Your task to perform on an android device: Open Reddit.com Image 0: 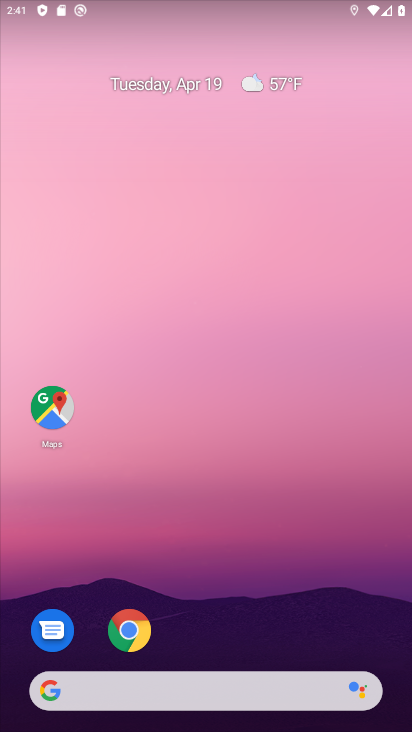
Step 0: click (144, 628)
Your task to perform on an android device: Open Reddit.com Image 1: 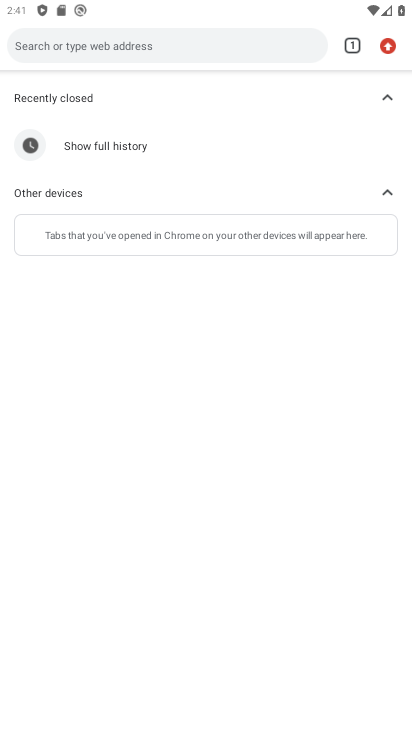
Step 1: click (180, 59)
Your task to perform on an android device: Open Reddit.com Image 2: 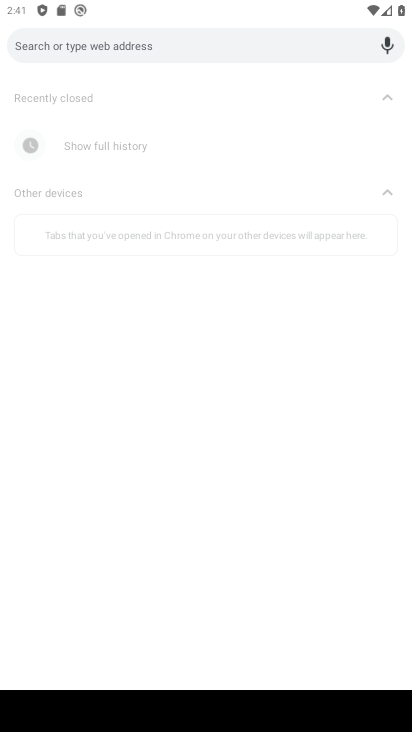
Step 2: type "Reddit.com"
Your task to perform on an android device: Open Reddit.com Image 3: 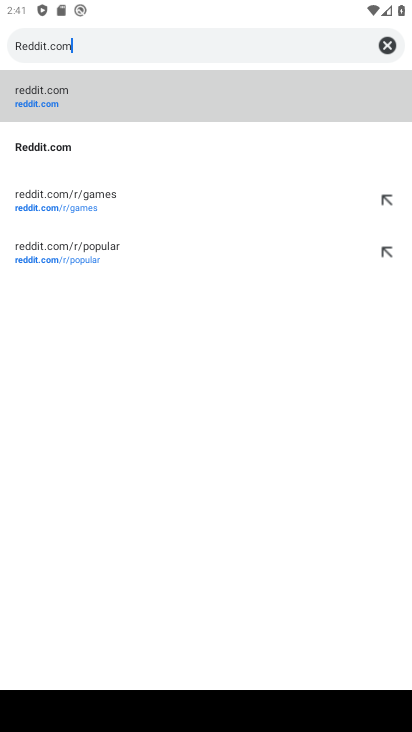
Step 3: click (160, 87)
Your task to perform on an android device: Open Reddit.com Image 4: 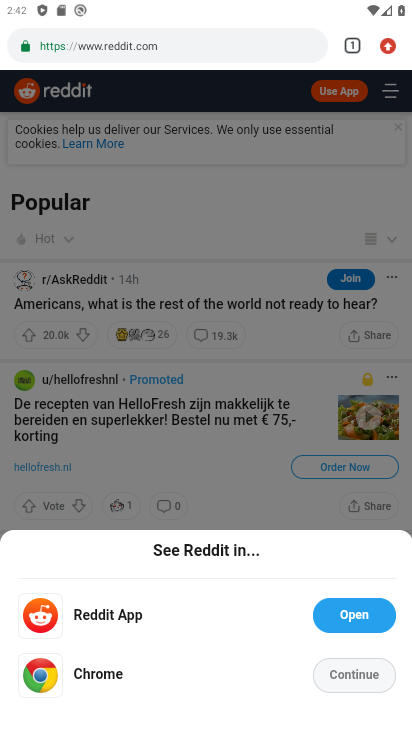
Step 4: click (365, 680)
Your task to perform on an android device: Open Reddit.com Image 5: 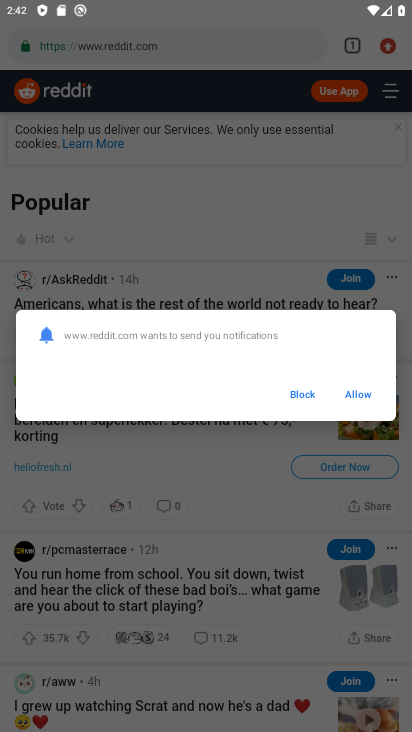
Step 5: task complete